Your task to perform on an android device: Open Google Image 0: 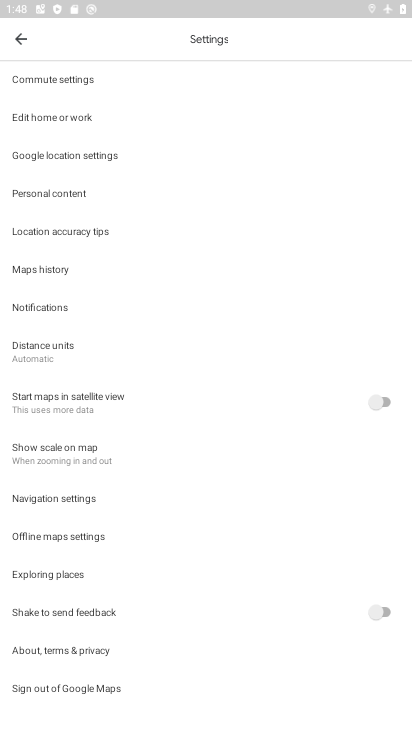
Step 0: press home button
Your task to perform on an android device: Open Google Image 1: 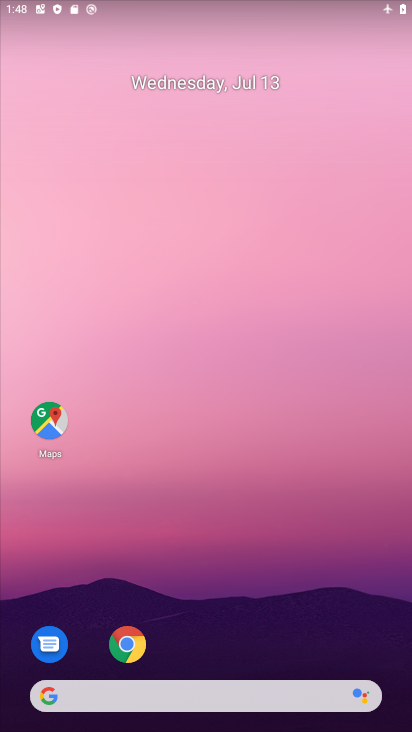
Step 1: drag from (300, 615) to (275, 45)
Your task to perform on an android device: Open Google Image 2: 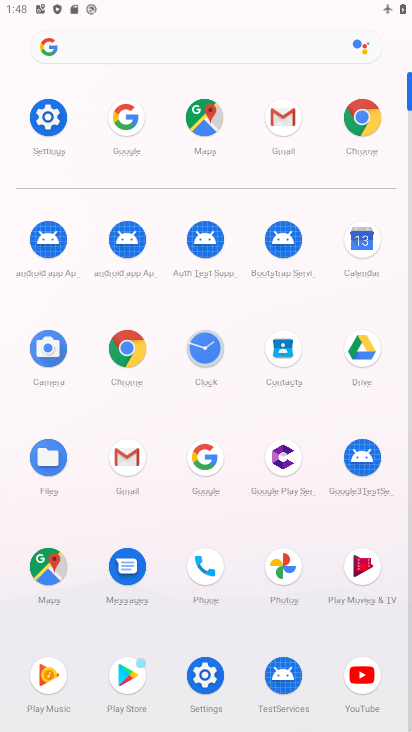
Step 2: click (210, 450)
Your task to perform on an android device: Open Google Image 3: 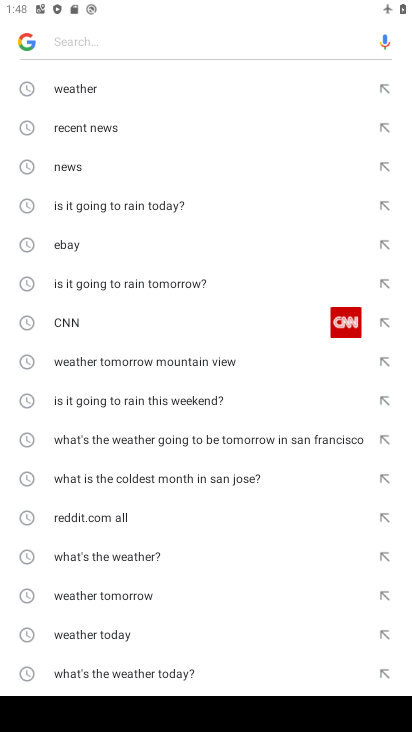
Step 3: task complete